Your task to perform on an android device: empty trash in google photos Image 0: 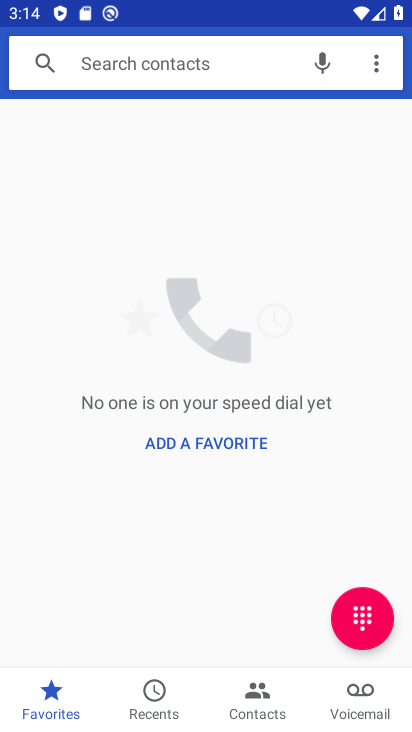
Step 0: press back button
Your task to perform on an android device: empty trash in google photos Image 1: 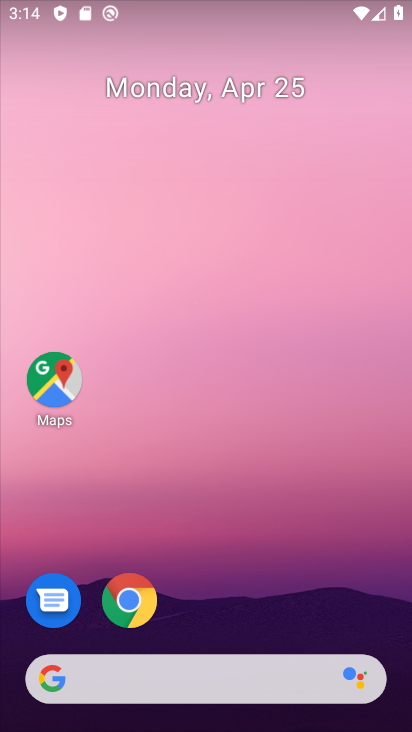
Step 1: drag from (320, 485) to (310, 20)
Your task to perform on an android device: empty trash in google photos Image 2: 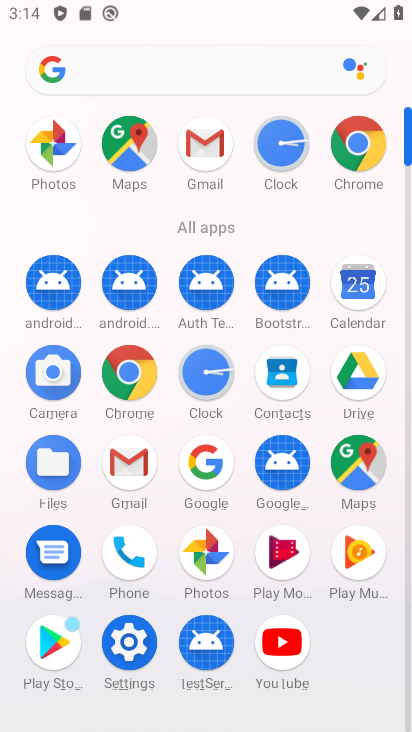
Step 2: drag from (11, 531) to (13, 311)
Your task to perform on an android device: empty trash in google photos Image 3: 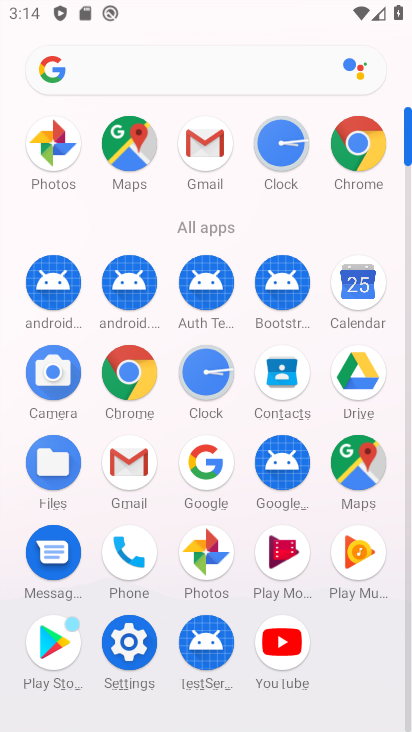
Step 3: click (210, 548)
Your task to perform on an android device: empty trash in google photos Image 4: 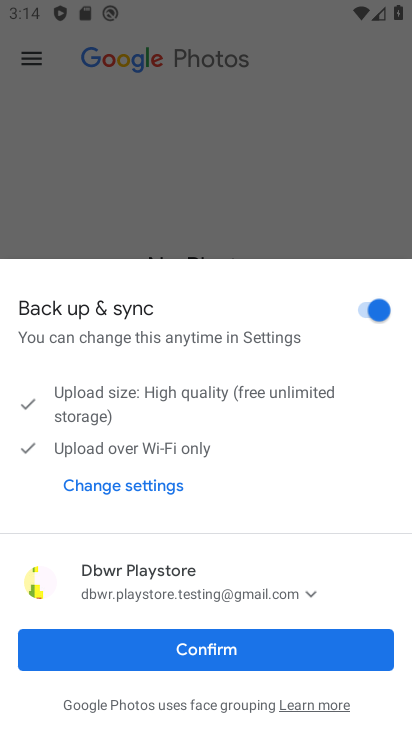
Step 4: click (237, 654)
Your task to perform on an android device: empty trash in google photos Image 5: 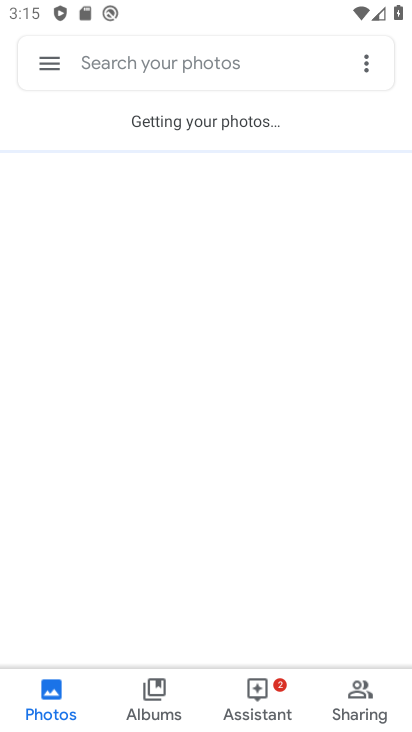
Step 5: click (45, 60)
Your task to perform on an android device: empty trash in google photos Image 6: 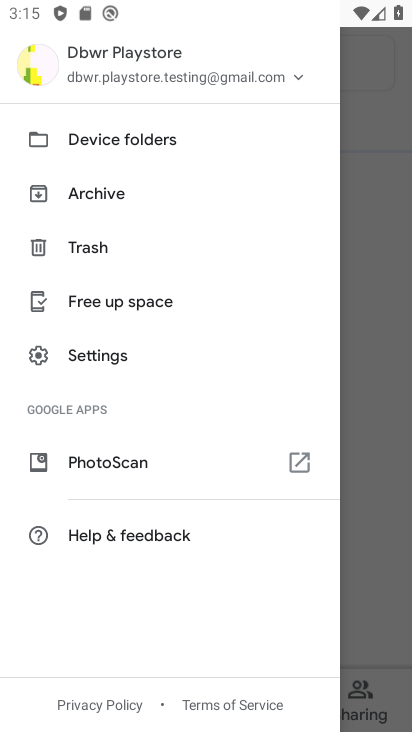
Step 6: click (114, 237)
Your task to perform on an android device: empty trash in google photos Image 7: 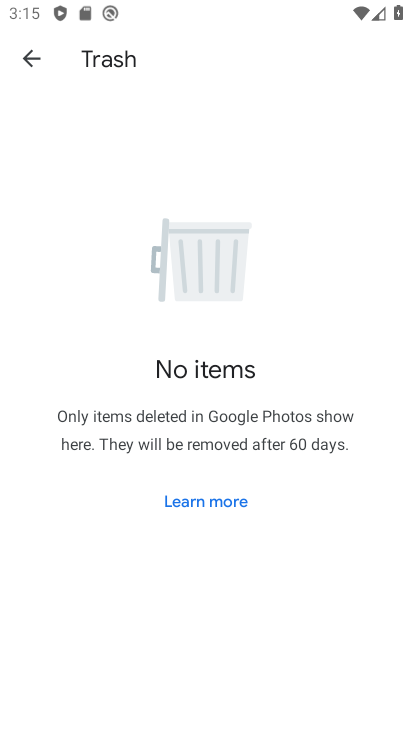
Step 7: task complete